Your task to perform on an android device: Open Android settings Image 0: 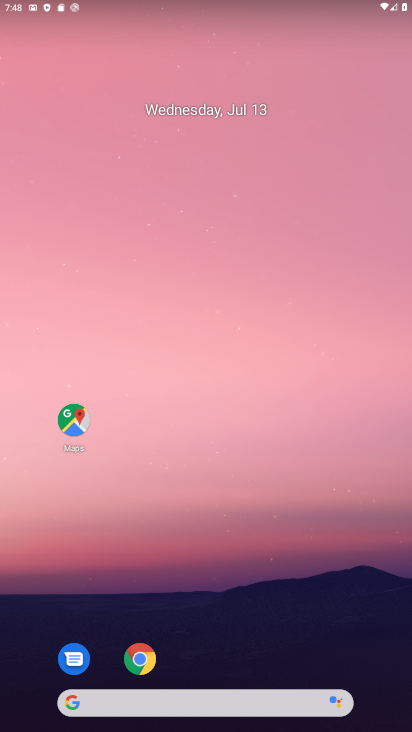
Step 0: drag from (219, 658) to (232, 266)
Your task to perform on an android device: Open Android settings Image 1: 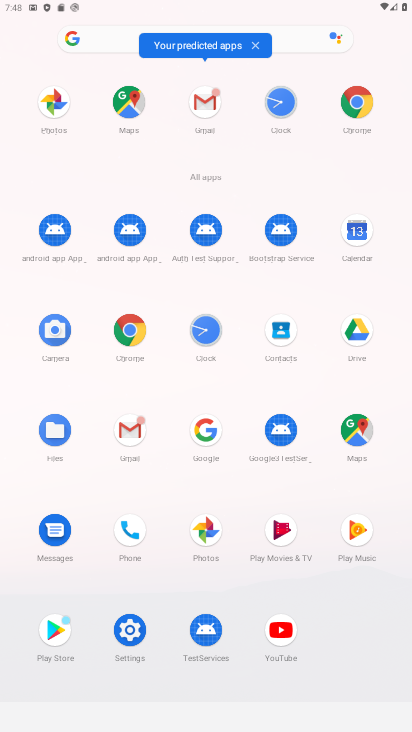
Step 1: click (139, 620)
Your task to perform on an android device: Open Android settings Image 2: 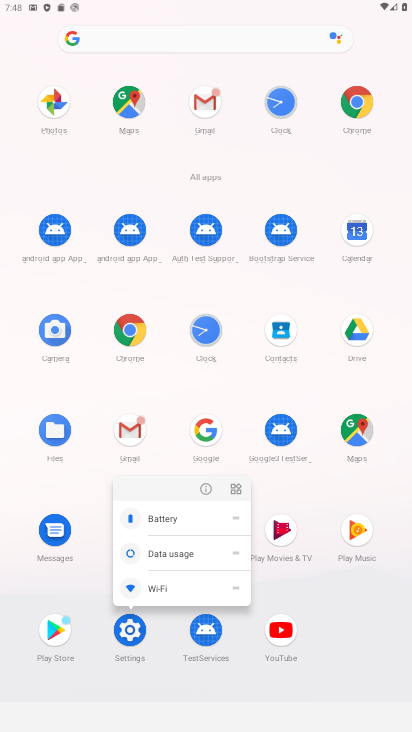
Step 2: click (129, 624)
Your task to perform on an android device: Open Android settings Image 3: 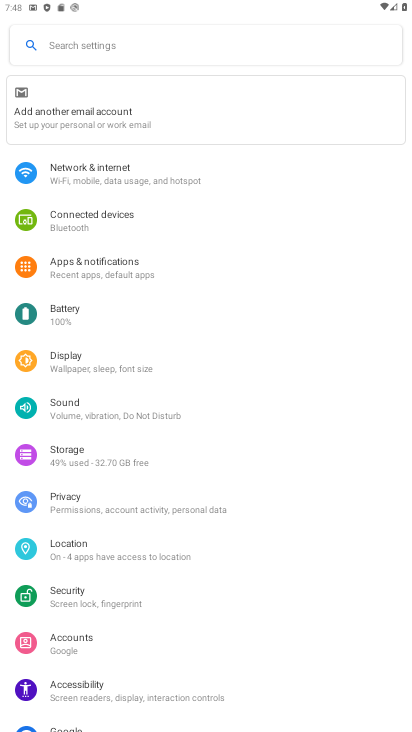
Step 3: task complete